Your task to perform on an android device: check data usage Image 0: 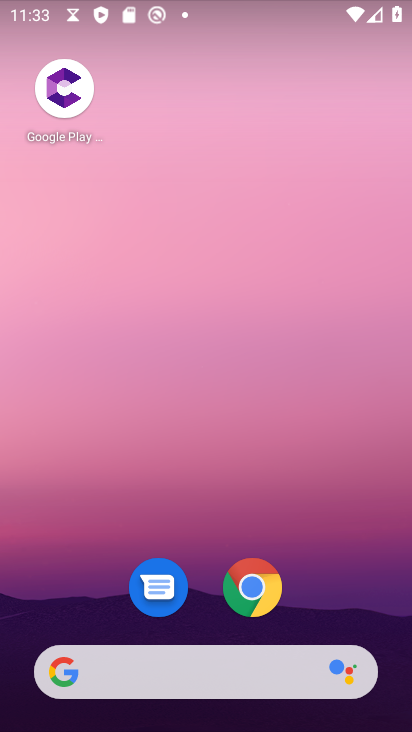
Step 0: drag from (66, 647) to (170, 196)
Your task to perform on an android device: check data usage Image 1: 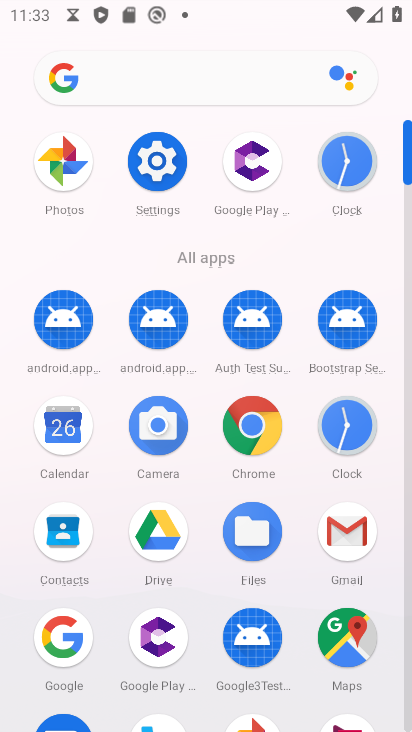
Step 1: drag from (190, 602) to (291, 318)
Your task to perform on an android device: check data usage Image 2: 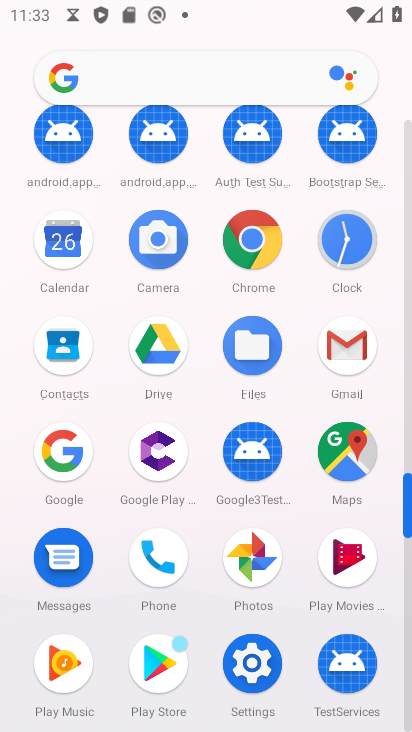
Step 2: click (259, 677)
Your task to perform on an android device: check data usage Image 3: 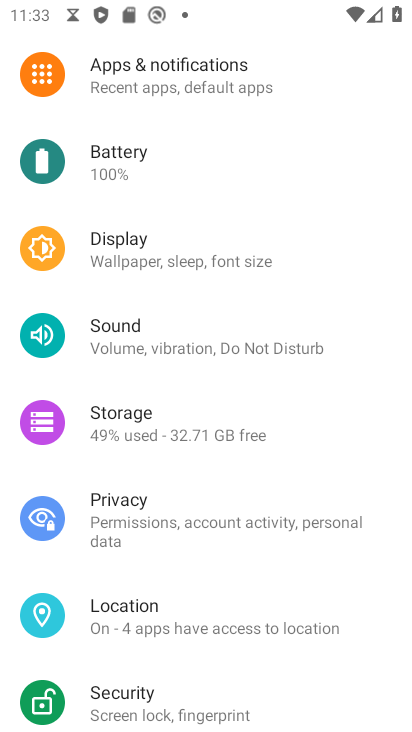
Step 3: drag from (234, 191) to (210, 699)
Your task to perform on an android device: check data usage Image 4: 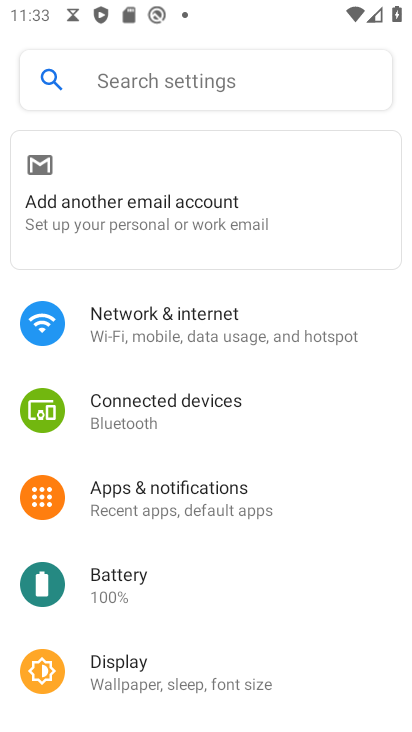
Step 4: click (220, 333)
Your task to perform on an android device: check data usage Image 5: 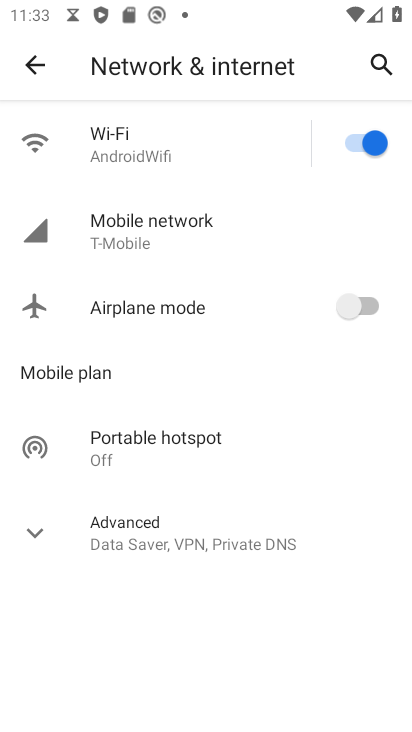
Step 5: click (226, 230)
Your task to perform on an android device: check data usage Image 6: 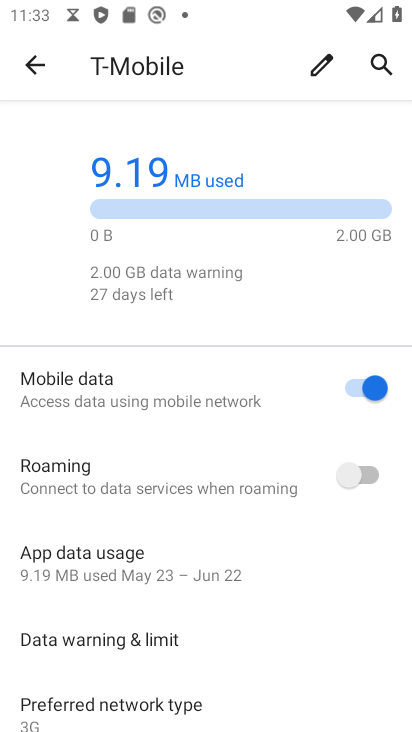
Step 6: click (170, 581)
Your task to perform on an android device: check data usage Image 7: 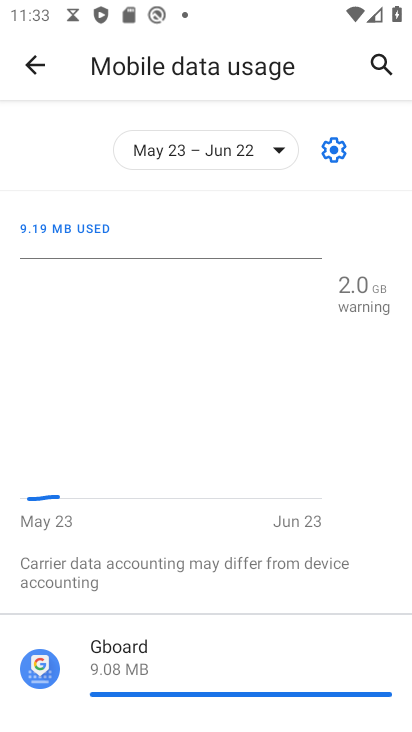
Step 7: task complete